Your task to perform on an android device: Go to wifi settings Image 0: 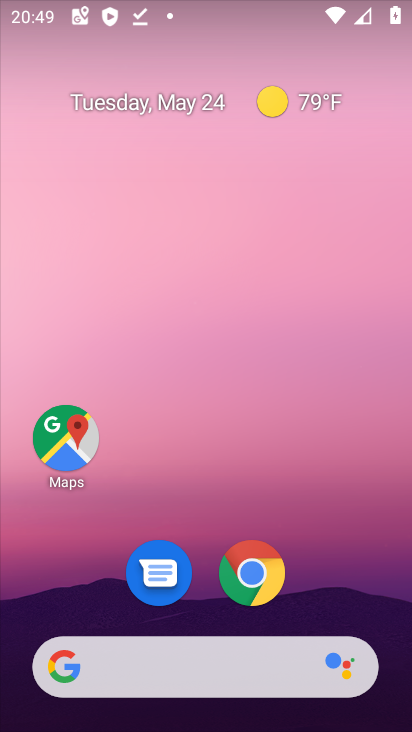
Step 0: drag from (308, 624) to (210, 217)
Your task to perform on an android device: Go to wifi settings Image 1: 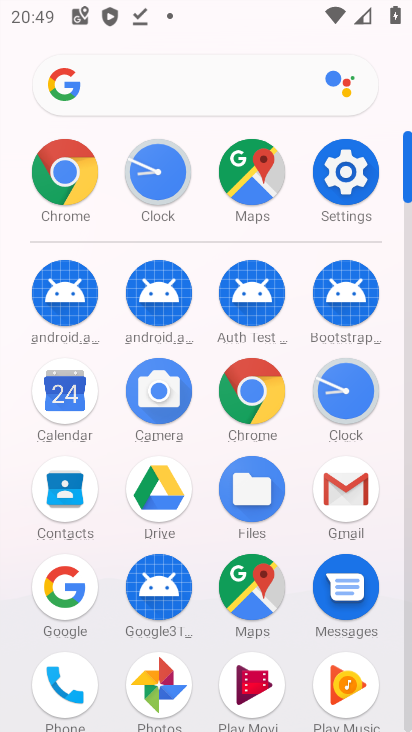
Step 1: drag from (159, 94) to (159, 52)
Your task to perform on an android device: Go to wifi settings Image 2: 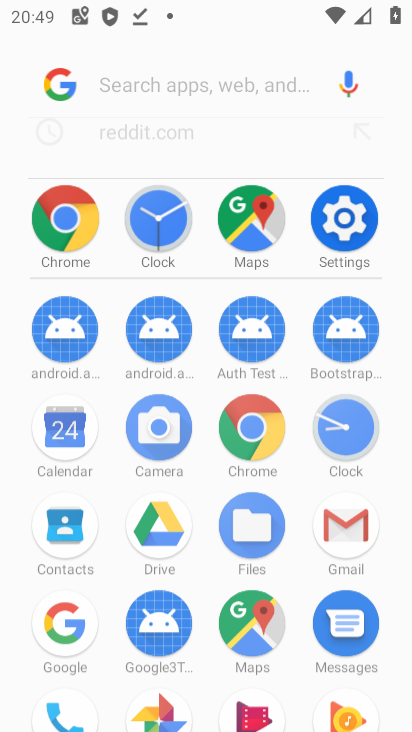
Step 2: click (346, 169)
Your task to perform on an android device: Go to wifi settings Image 3: 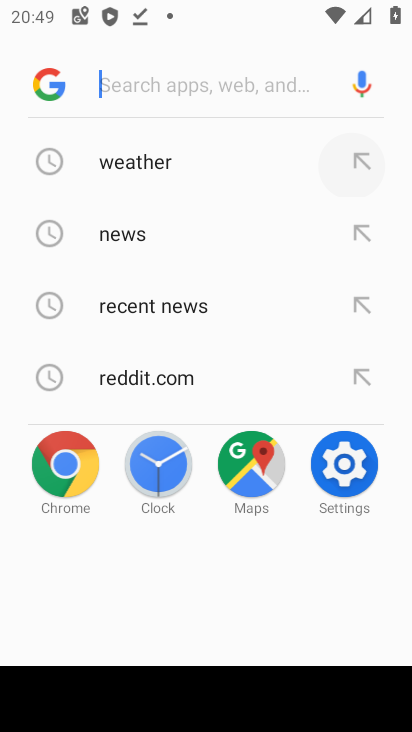
Step 3: click (346, 169)
Your task to perform on an android device: Go to wifi settings Image 4: 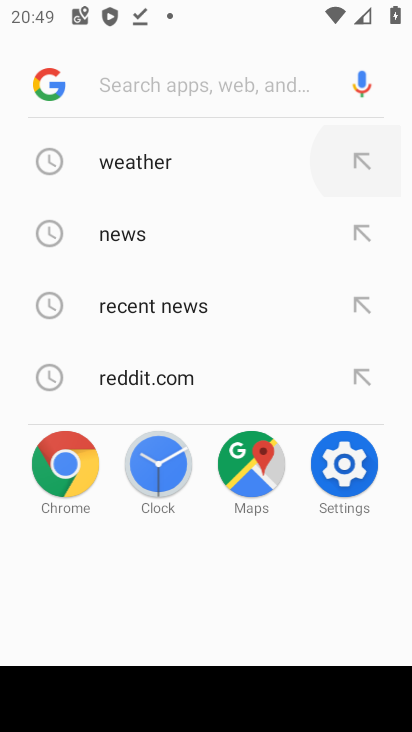
Step 4: click (346, 169)
Your task to perform on an android device: Go to wifi settings Image 5: 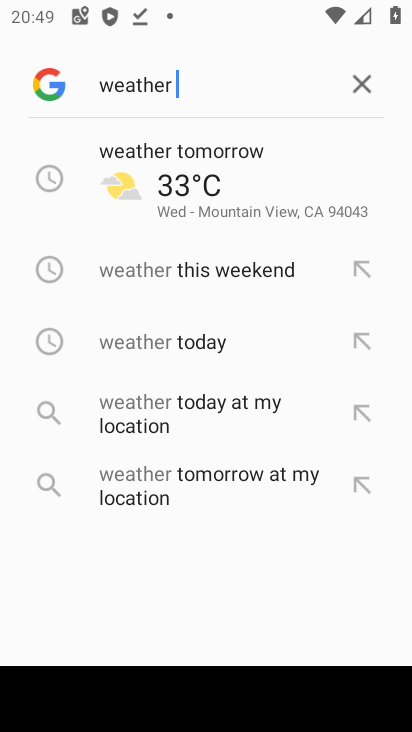
Step 5: click (348, 460)
Your task to perform on an android device: Go to wifi settings Image 6: 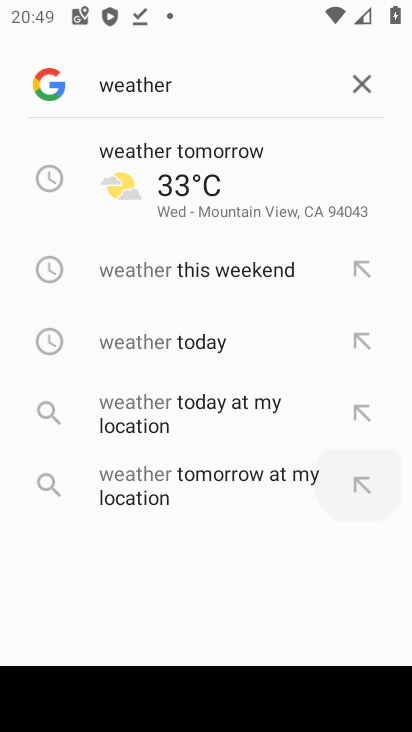
Step 6: click (350, 471)
Your task to perform on an android device: Go to wifi settings Image 7: 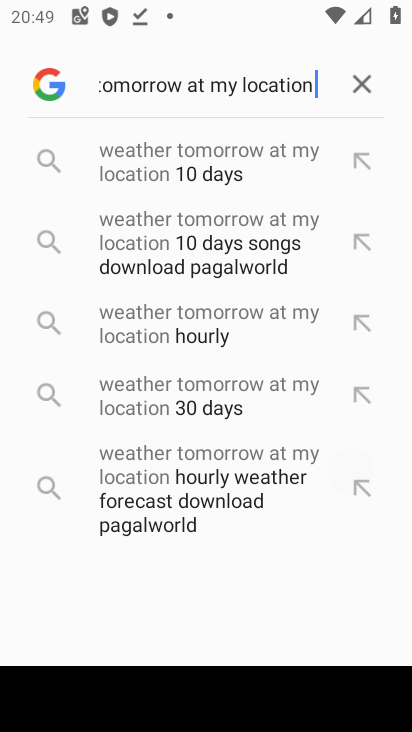
Step 7: click (350, 471)
Your task to perform on an android device: Go to wifi settings Image 8: 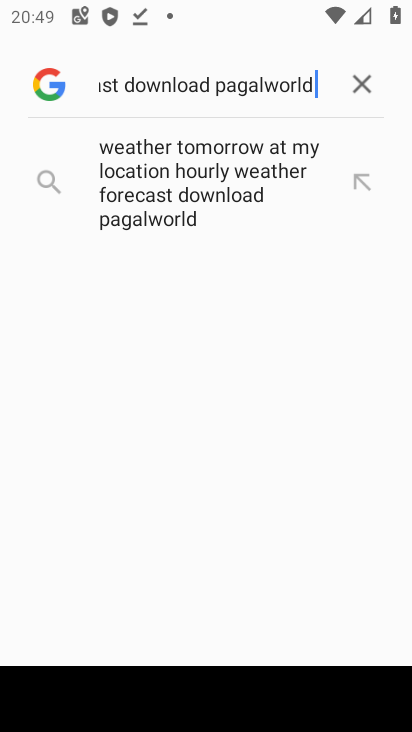
Step 8: press back button
Your task to perform on an android device: Go to wifi settings Image 9: 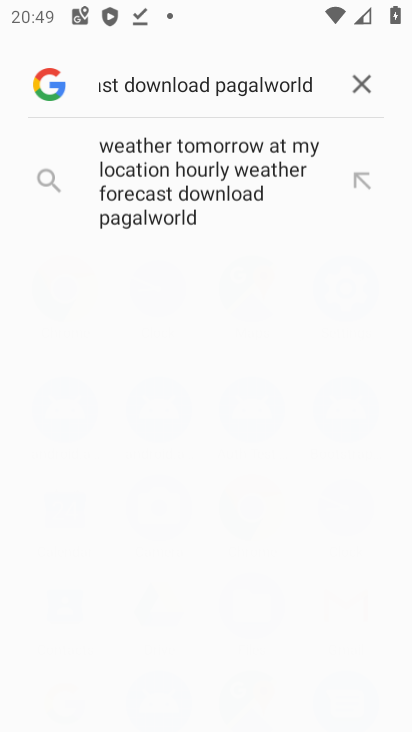
Step 9: press back button
Your task to perform on an android device: Go to wifi settings Image 10: 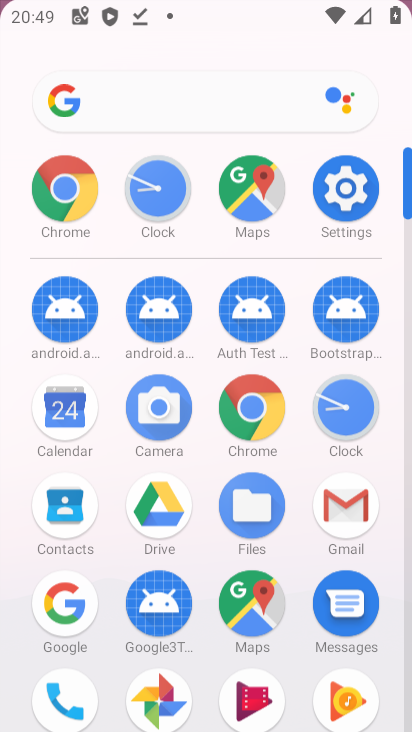
Step 10: press back button
Your task to perform on an android device: Go to wifi settings Image 11: 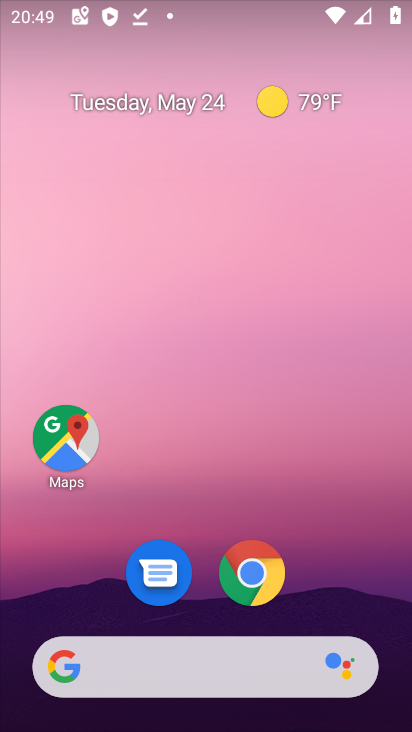
Step 11: press back button
Your task to perform on an android device: Go to wifi settings Image 12: 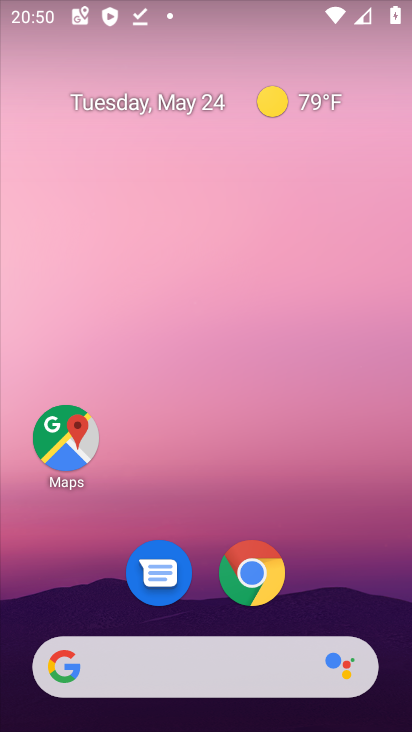
Step 12: drag from (258, 570) to (235, 197)
Your task to perform on an android device: Go to wifi settings Image 13: 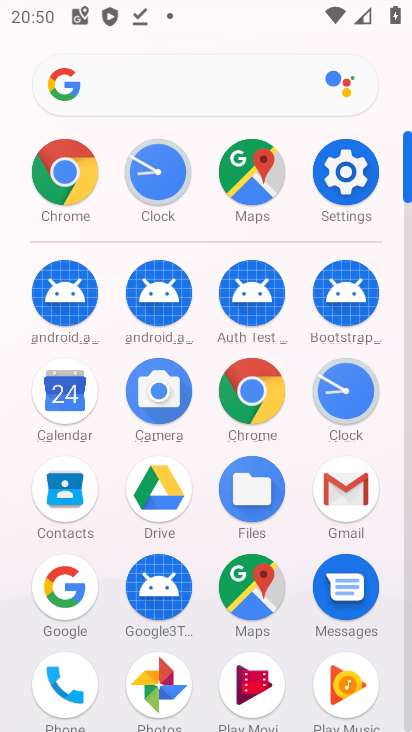
Step 13: click (334, 177)
Your task to perform on an android device: Go to wifi settings Image 14: 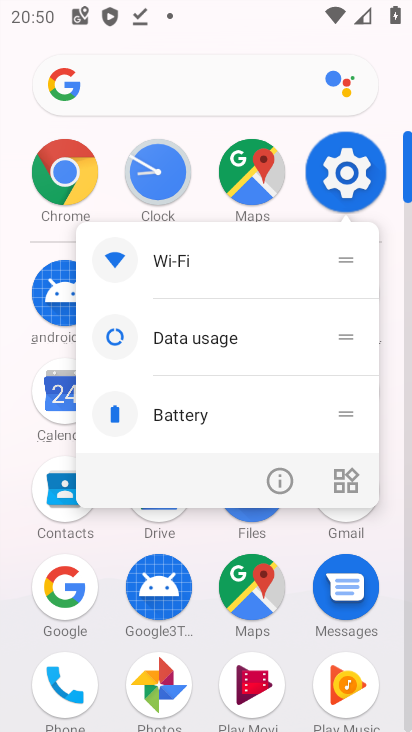
Step 14: click (334, 176)
Your task to perform on an android device: Go to wifi settings Image 15: 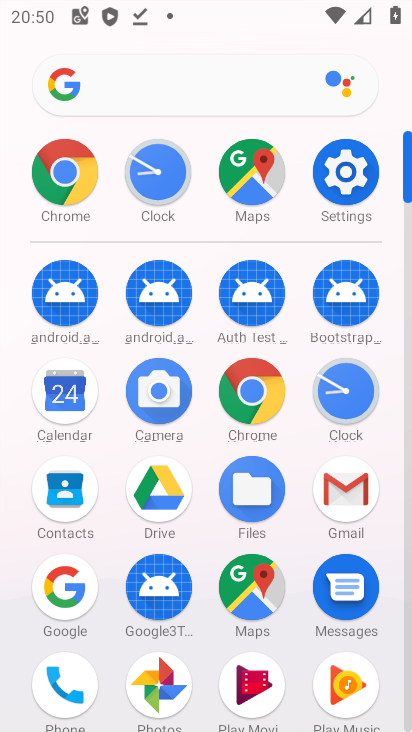
Step 15: click (331, 178)
Your task to perform on an android device: Go to wifi settings Image 16: 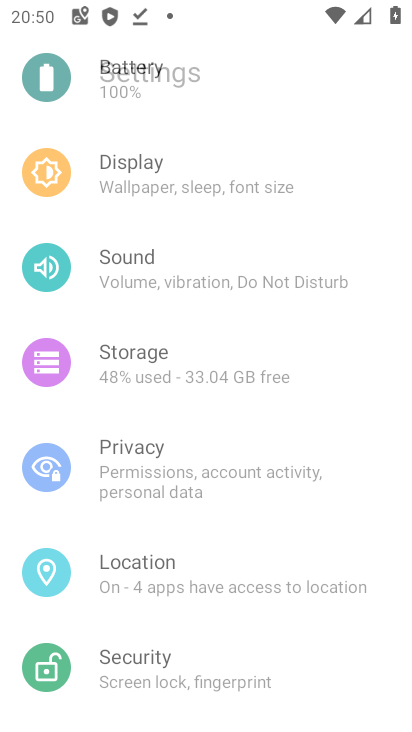
Step 16: click (350, 170)
Your task to perform on an android device: Go to wifi settings Image 17: 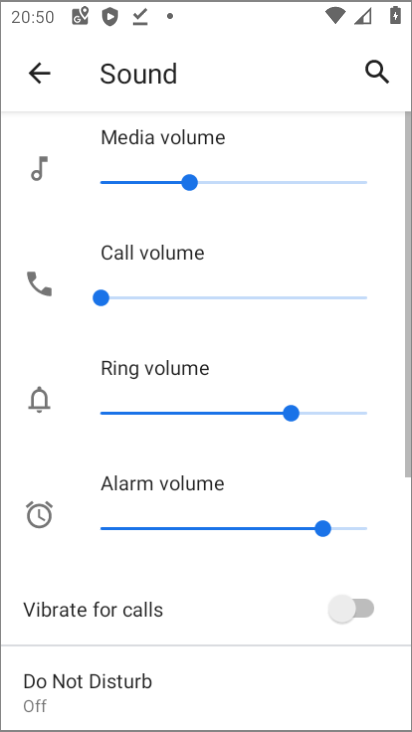
Step 17: drag from (168, 140) to (236, 524)
Your task to perform on an android device: Go to wifi settings Image 18: 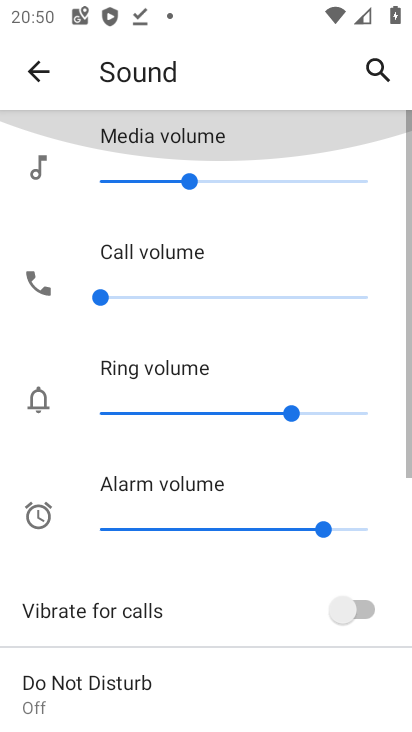
Step 18: drag from (176, 81) to (177, 522)
Your task to perform on an android device: Go to wifi settings Image 19: 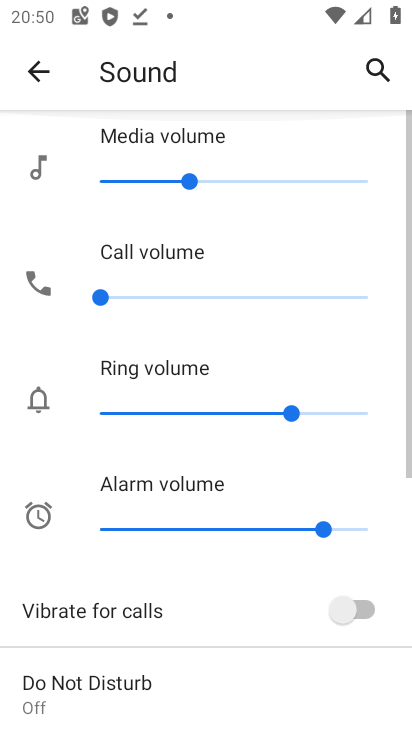
Step 19: drag from (162, 168) to (251, 497)
Your task to perform on an android device: Go to wifi settings Image 20: 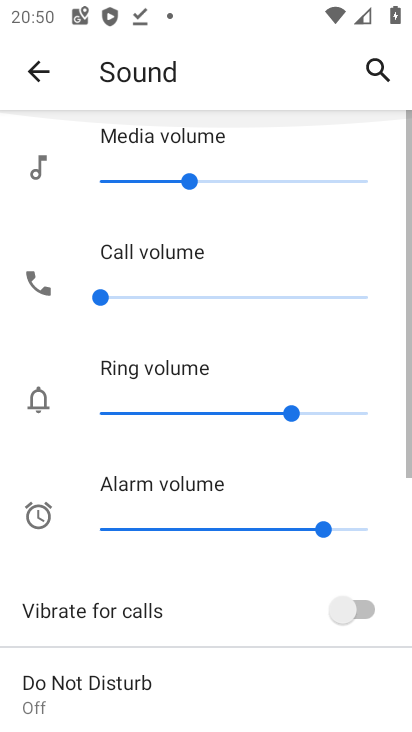
Step 20: click (31, 72)
Your task to perform on an android device: Go to wifi settings Image 21: 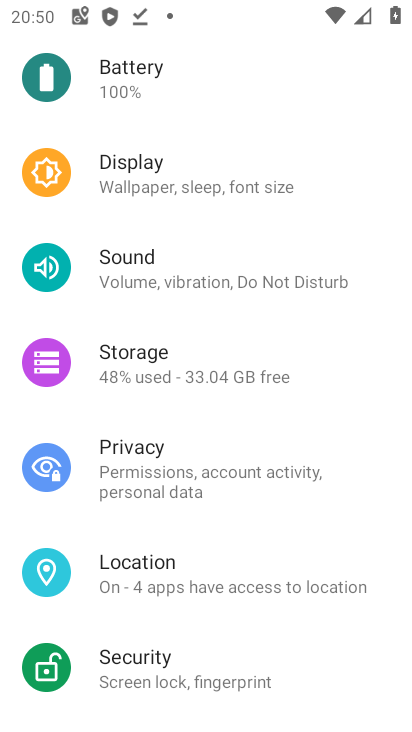
Step 21: drag from (122, 200) to (215, 522)
Your task to perform on an android device: Go to wifi settings Image 22: 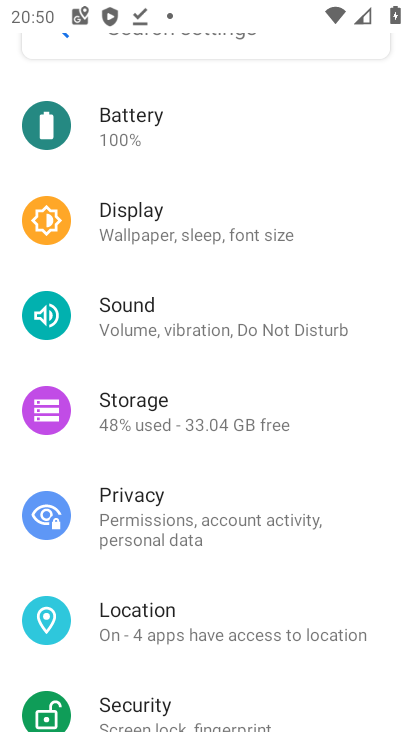
Step 22: drag from (154, 187) to (222, 464)
Your task to perform on an android device: Go to wifi settings Image 23: 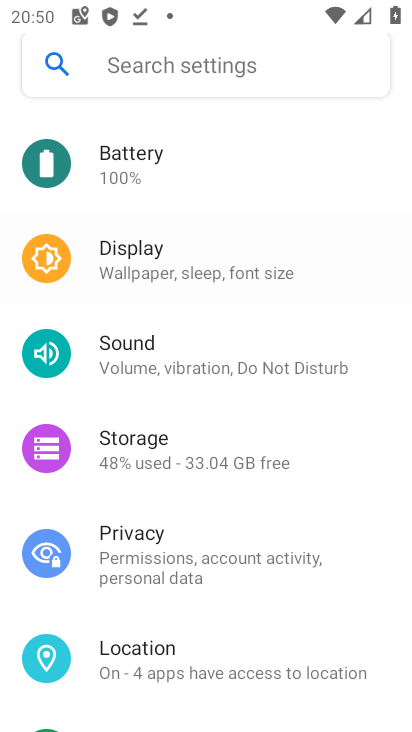
Step 23: drag from (222, 100) to (107, 477)
Your task to perform on an android device: Go to wifi settings Image 24: 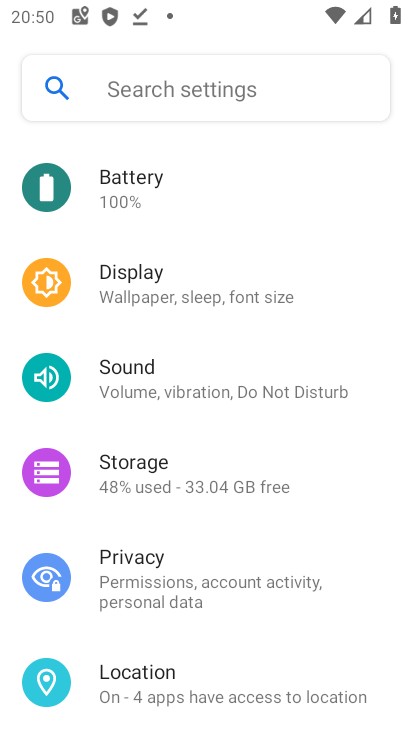
Step 24: drag from (138, 288) to (182, 463)
Your task to perform on an android device: Go to wifi settings Image 25: 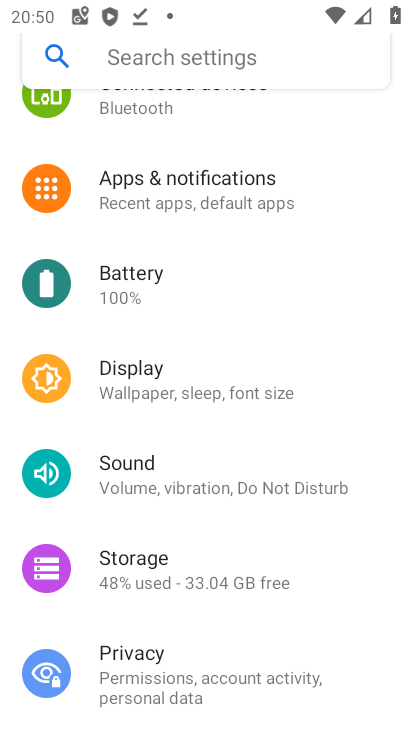
Step 25: drag from (182, 288) to (182, 497)
Your task to perform on an android device: Go to wifi settings Image 26: 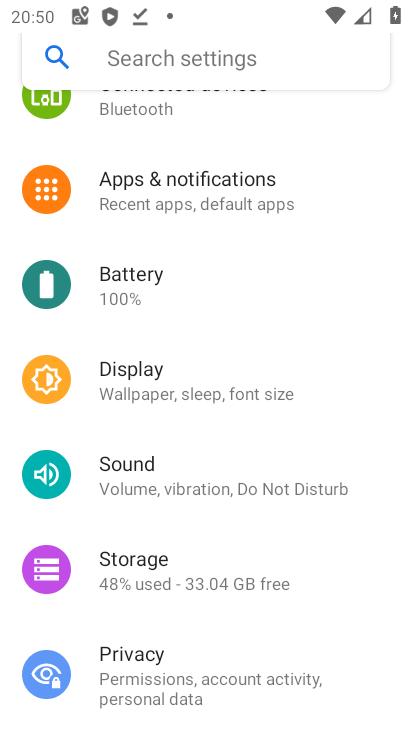
Step 26: drag from (146, 242) to (212, 564)
Your task to perform on an android device: Go to wifi settings Image 27: 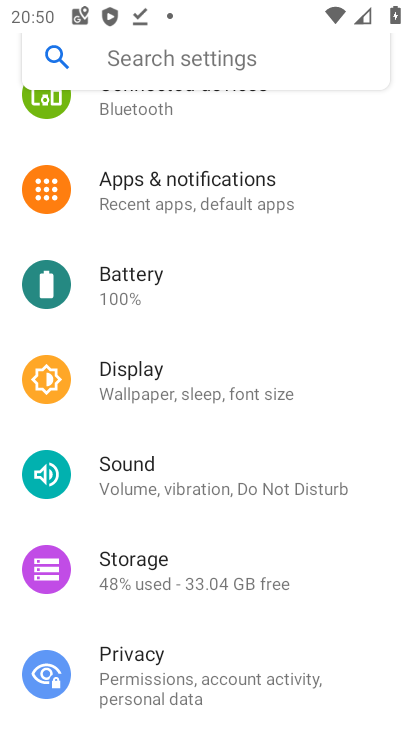
Step 27: drag from (194, 190) to (346, 294)
Your task to perform on an android device: Go to wifi settings Image 28: 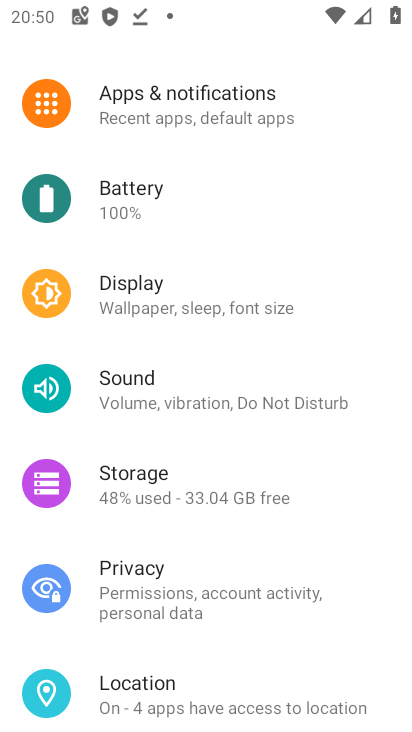
Step 28: click (205, 145)
Your task to perform on an android device: Go to wifi settings Image 29: 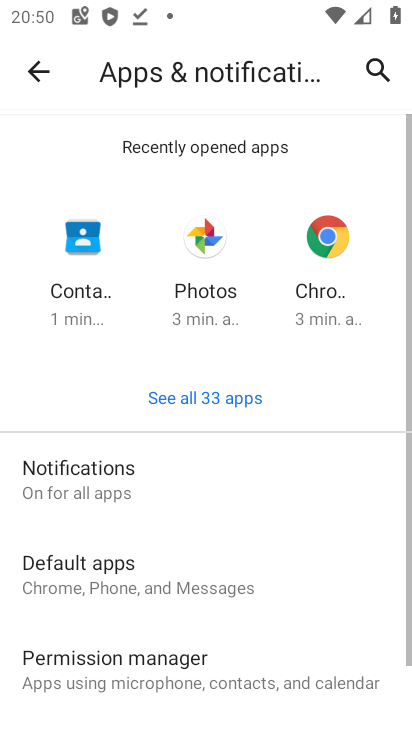
Step 29: click (24, 67)
Your task to perform on an android device: Go to wifi settings Image 30: 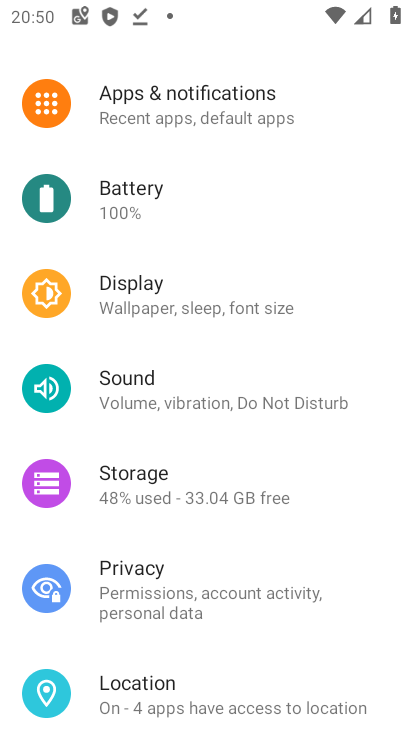
Step 30: drag from (195, 117) to (294, 471)
Your task to perform on an android device: Go to wifi settings Image 31: 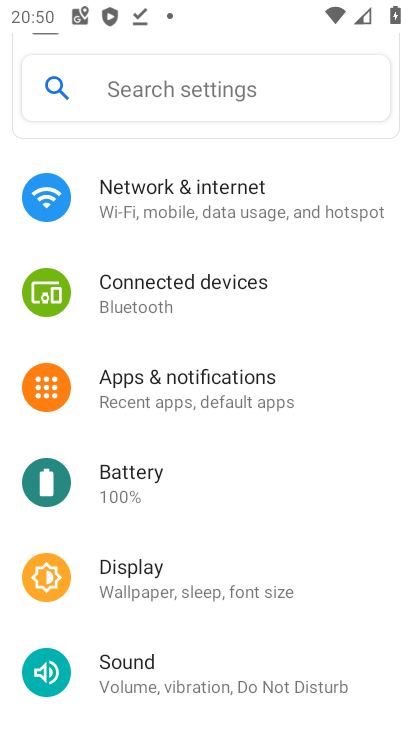
Step 31: click (192, 197)
Your task to perform on an android device: Go to wifi settings Image 32: 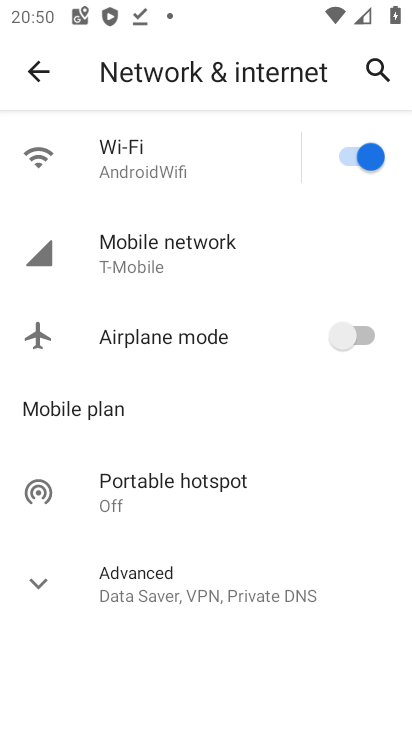
Step 32: task complete